Your task to perform on an android device: clear history in the chrome app Image 0: 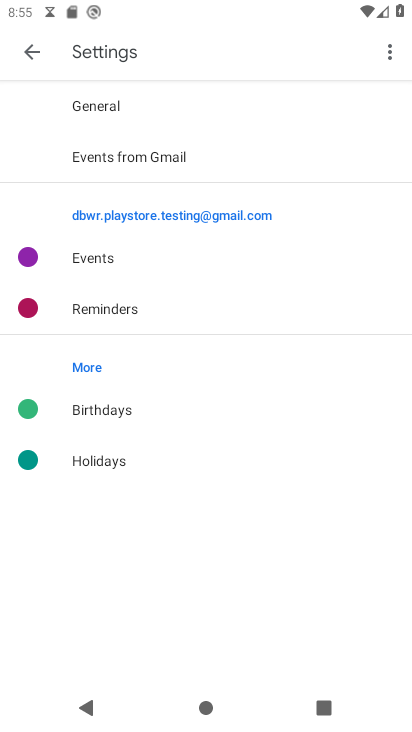
Step 0: press home button
Your task to perform on an android device: clear history in the chrome app Image 1: 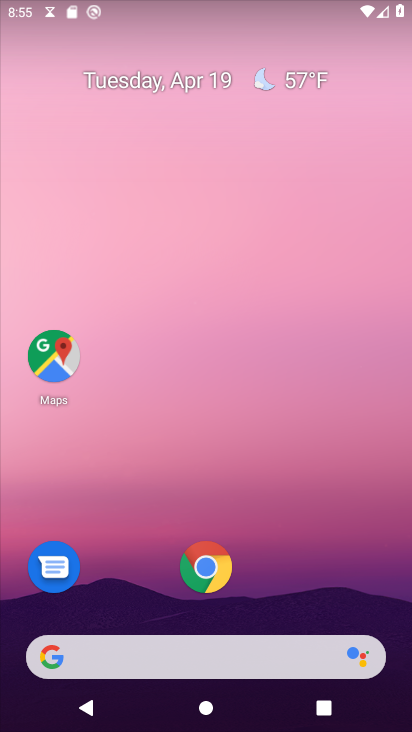
Step 1: drag from (300, 455) to (331, 0)
Your task to perform on an android device: clear history in the chrome app Image 2: 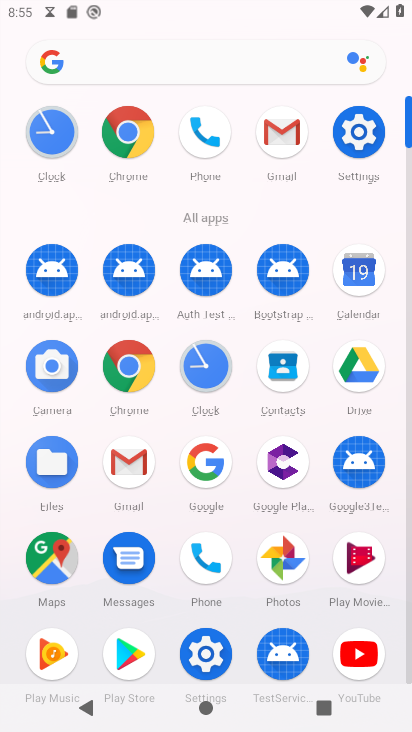
Step 2: click (129, 145)
Your task to perform on an android device: clear history in the chrome app Image 3: 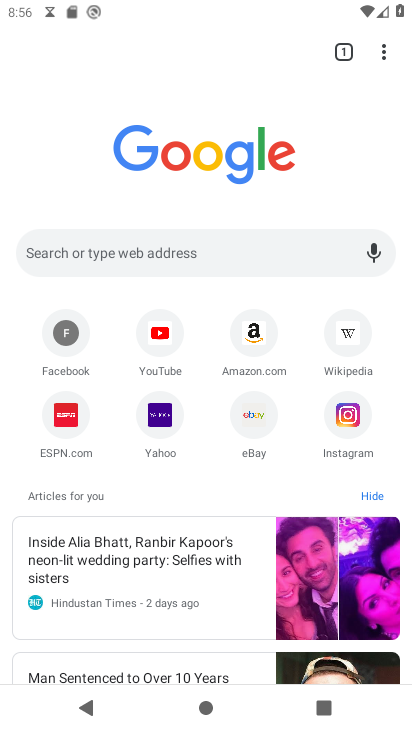
Step 3: task complete